Your task to perform on an android device: turn notification dots off Image 0: 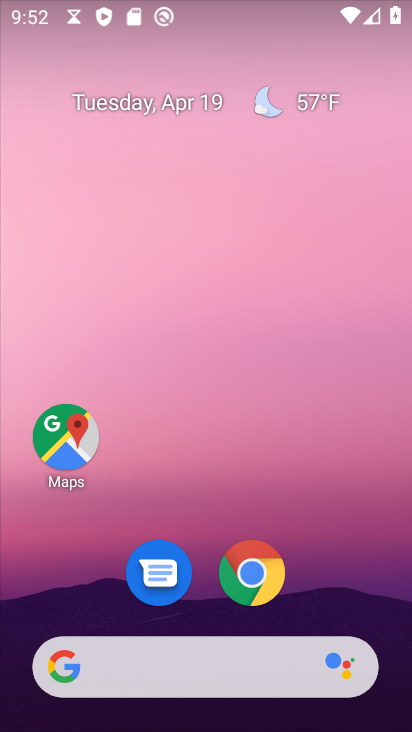
Step 0: drag from (298, 409) to (297, 119)
Your task to perform on an android device: turn notification dots off Image 1: 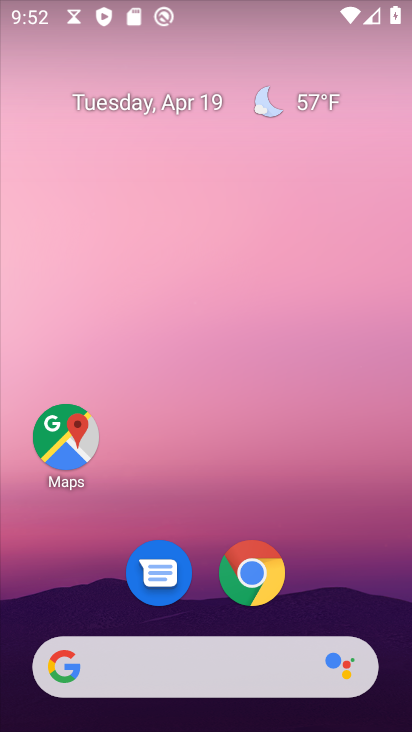
Step 1: drag from (289, 461) to (274, 12)
Your task to perform on an android device: turn notification dots off Image 2: 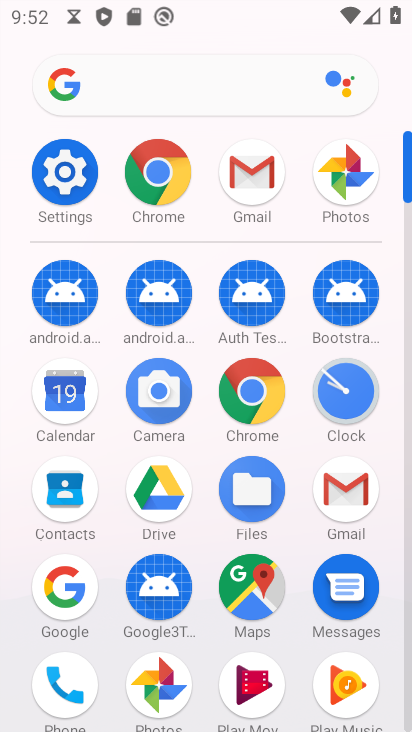
Step 2: click (68, 193)
Your task to perform on an android device: turn notification dots off Image 3: 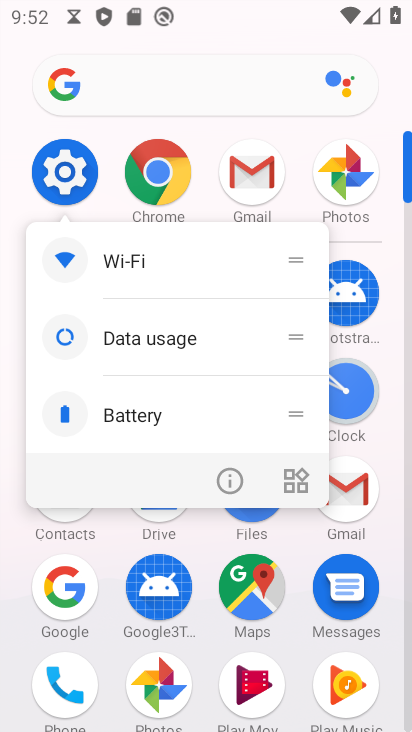
Step 3: click (62, 167)
Your task to perform on an android device: turn notification dots off Image 4: 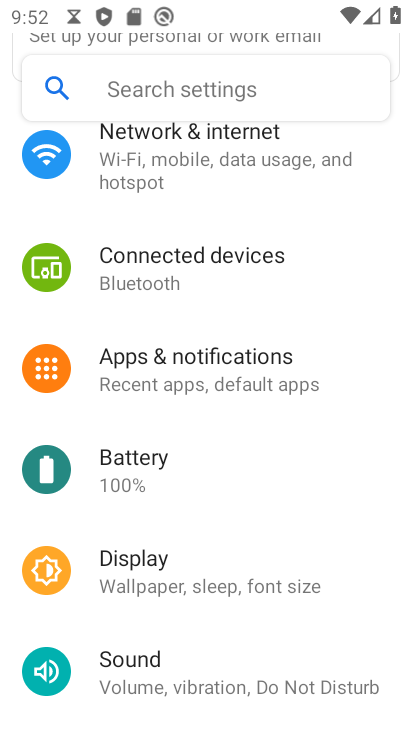
Step 4: click (198, 363)
Your task to perform on an android device: turn notification dots off Image 5: 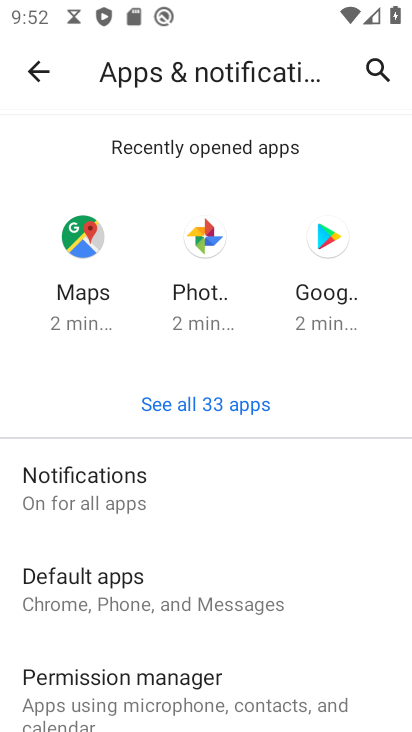
Step 5: click (138, 509)
Your task to perform on an android device: turn notification dots off Image 6: 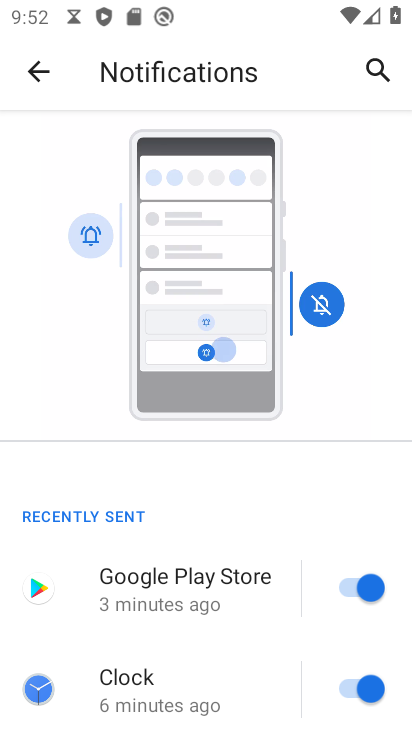
Step 6: drag from (198, 586) to (162, 171)
Your task to perform on an android device: turn notification dots off Image 7: 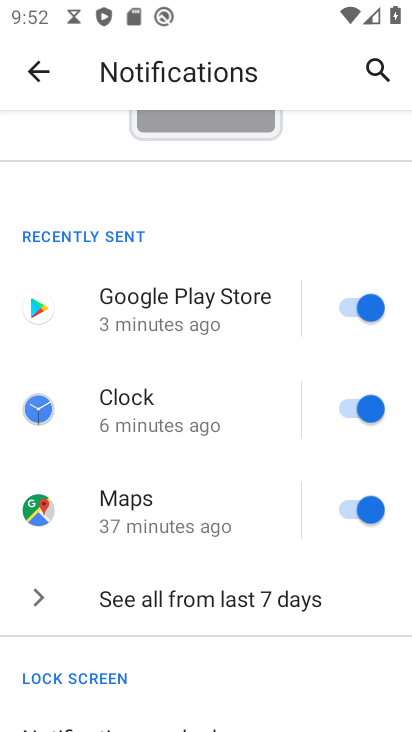
Step 7: drag from (239, 481) to (209, 145)
Your task to perform on an android device: turn notification dots off Image 8: 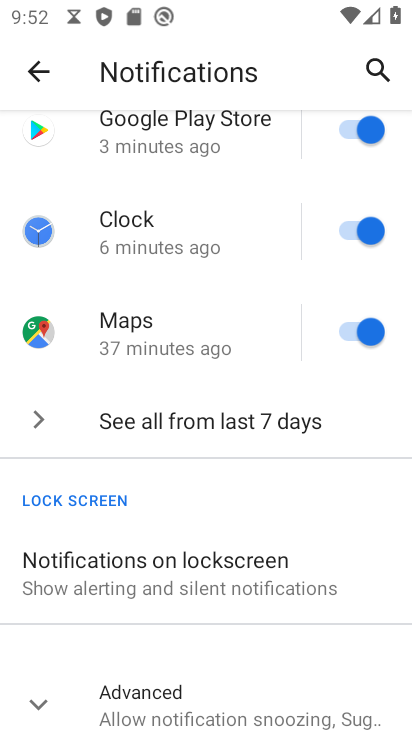
Step 8: drag from (257, 699) to (231, 265)
Your task to perform on an android device: turn notification dots off Image 9: 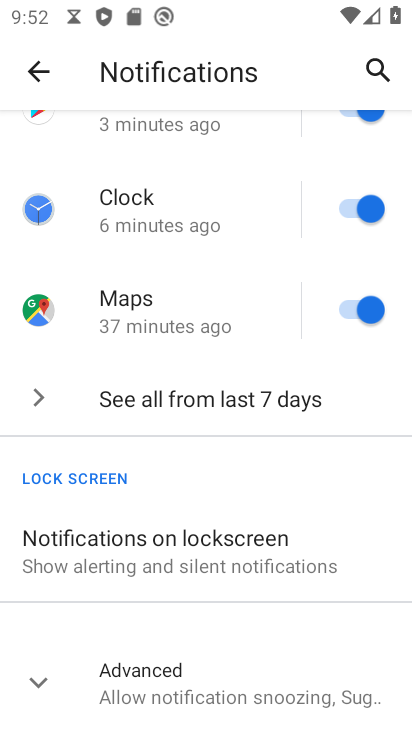
Step 9: click (171, 670)
Your task to perform on an android device: turn notification dots off Image 10: 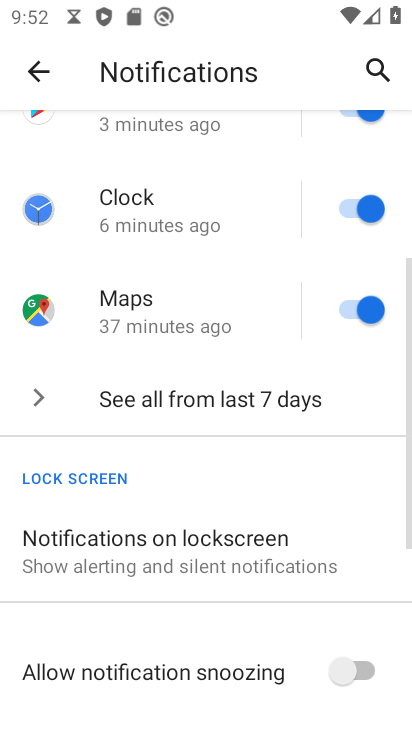
Step 10: task complete